Your task to perform on an android device: change the clock display to show seconds Image 0: 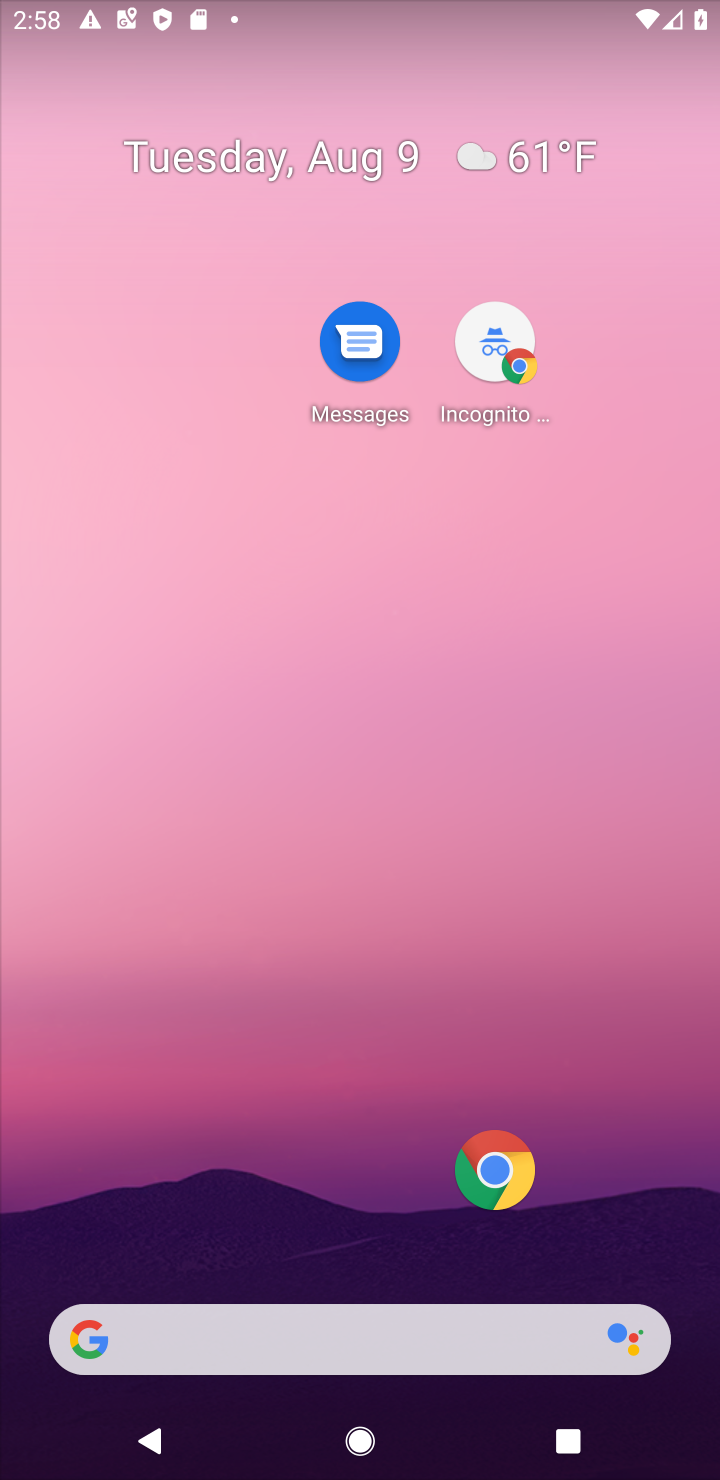
Step 0: drag from (285, 1220) to (412, 36)
Your task to perform on an android device: change the clock display to show seconds Image 1: 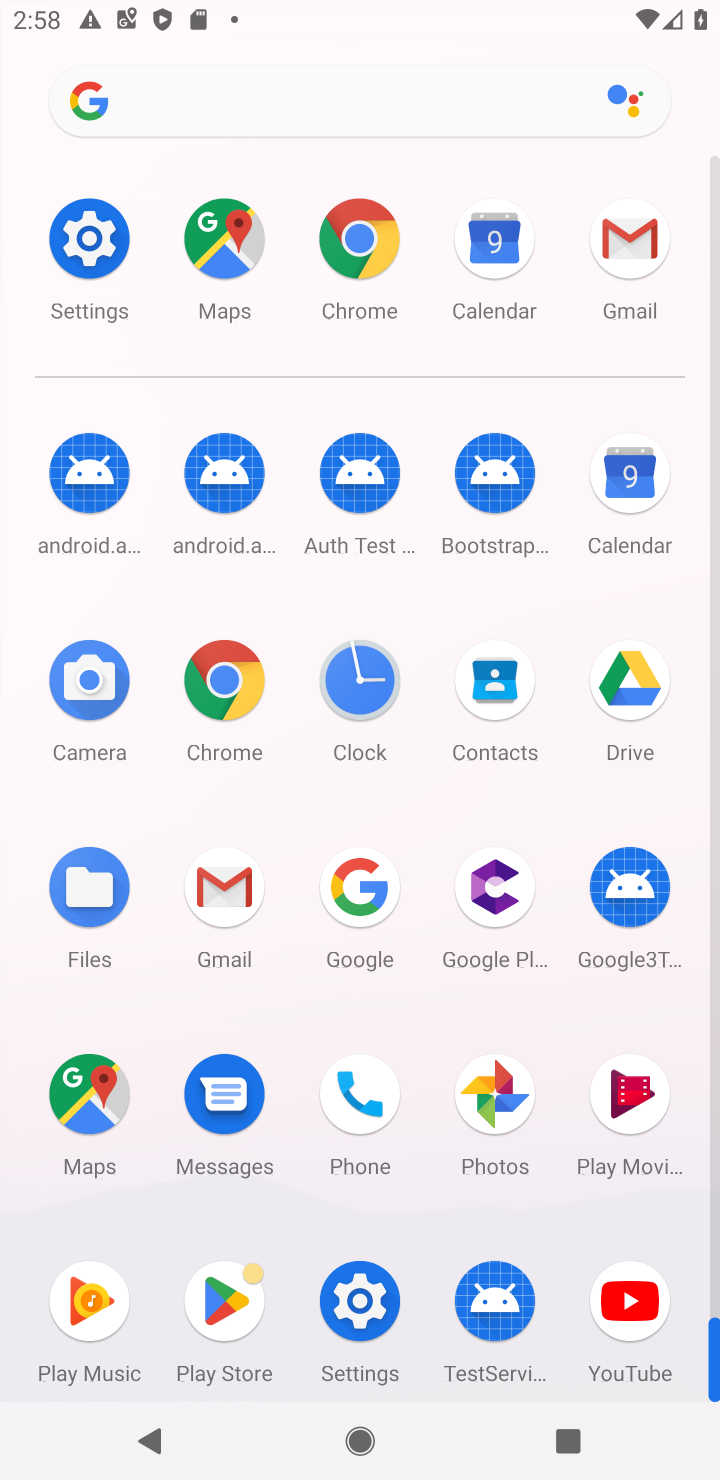
Step 1: click (382, 696)
Your task to perform on an android device: change the clock display to show seconds Image 2: 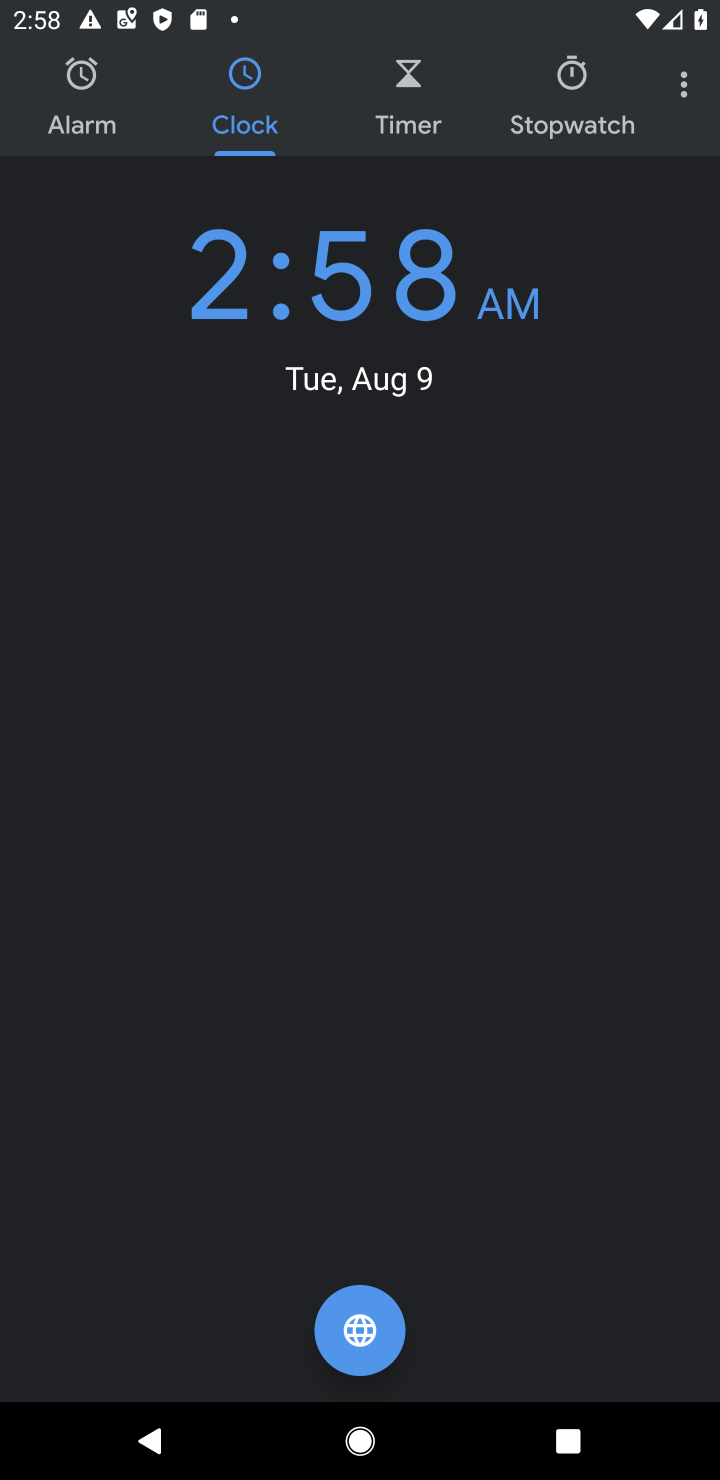
Step 2: click (657, 59)
Your task to perform on an android device: change the clock display to show seconds Image 3: 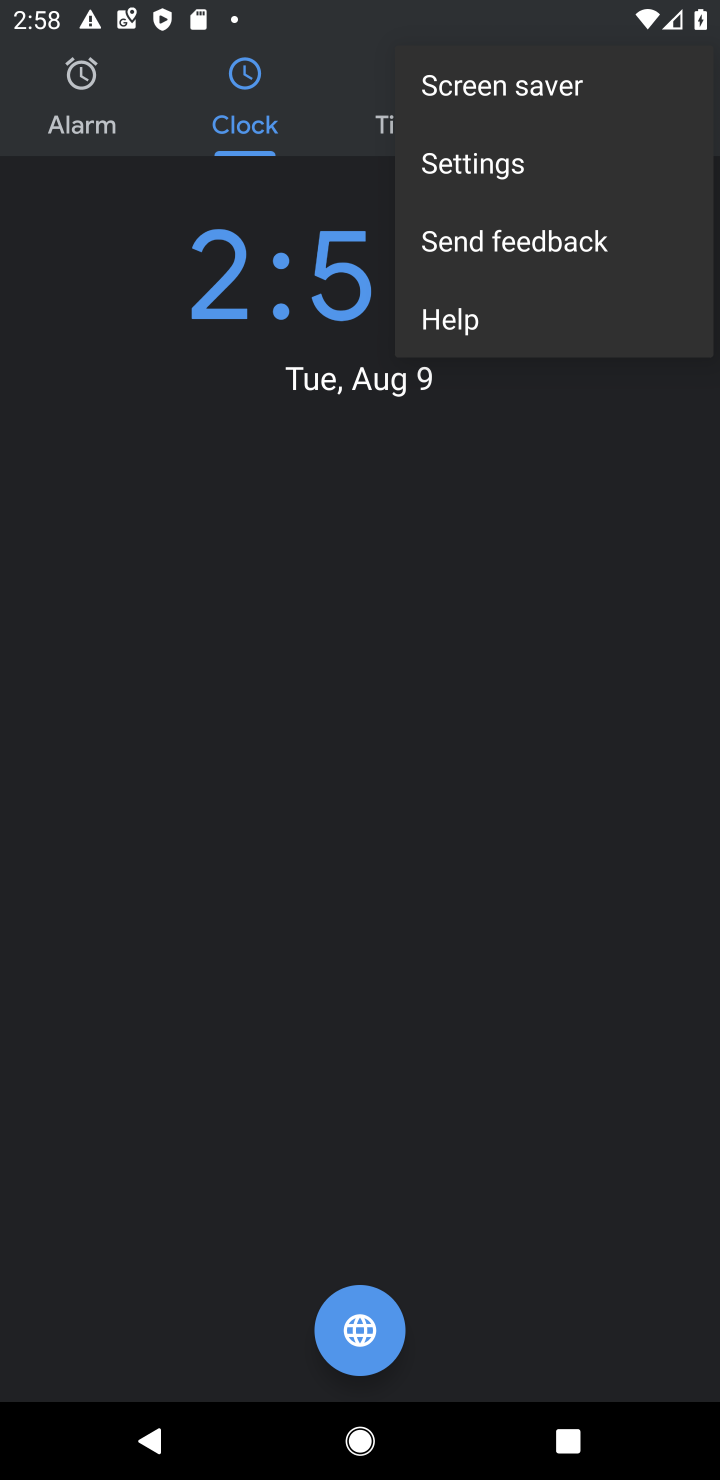
Step 3: click (458, 174)
Your task to perform on an android device: change the clock display to show seconds Image 4: 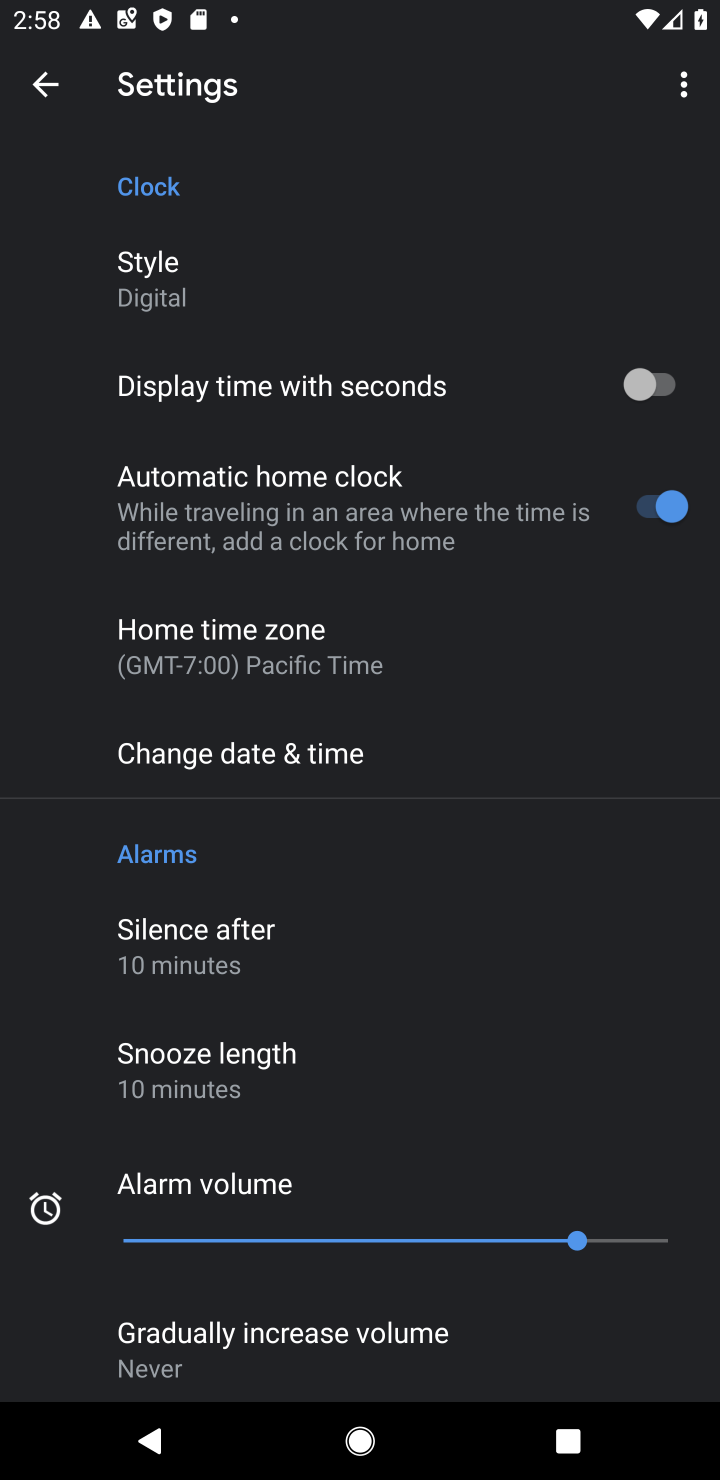
Step 4: click (167, 289)
Your task to perform on an android device: change the clock display to show seconds Image 5: 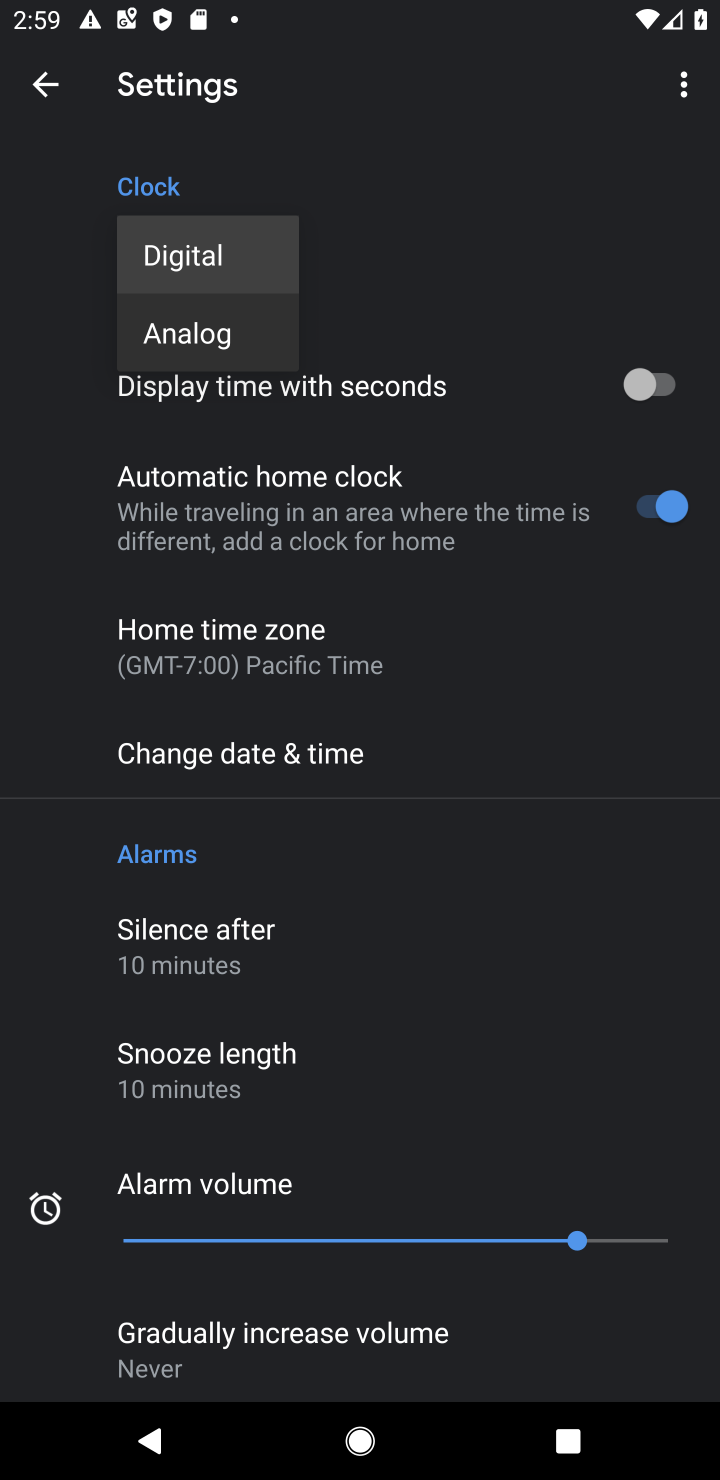
Step 5: click (211, 348)
Your task to perform on an android device: change the clock display to show seconds Image 6: 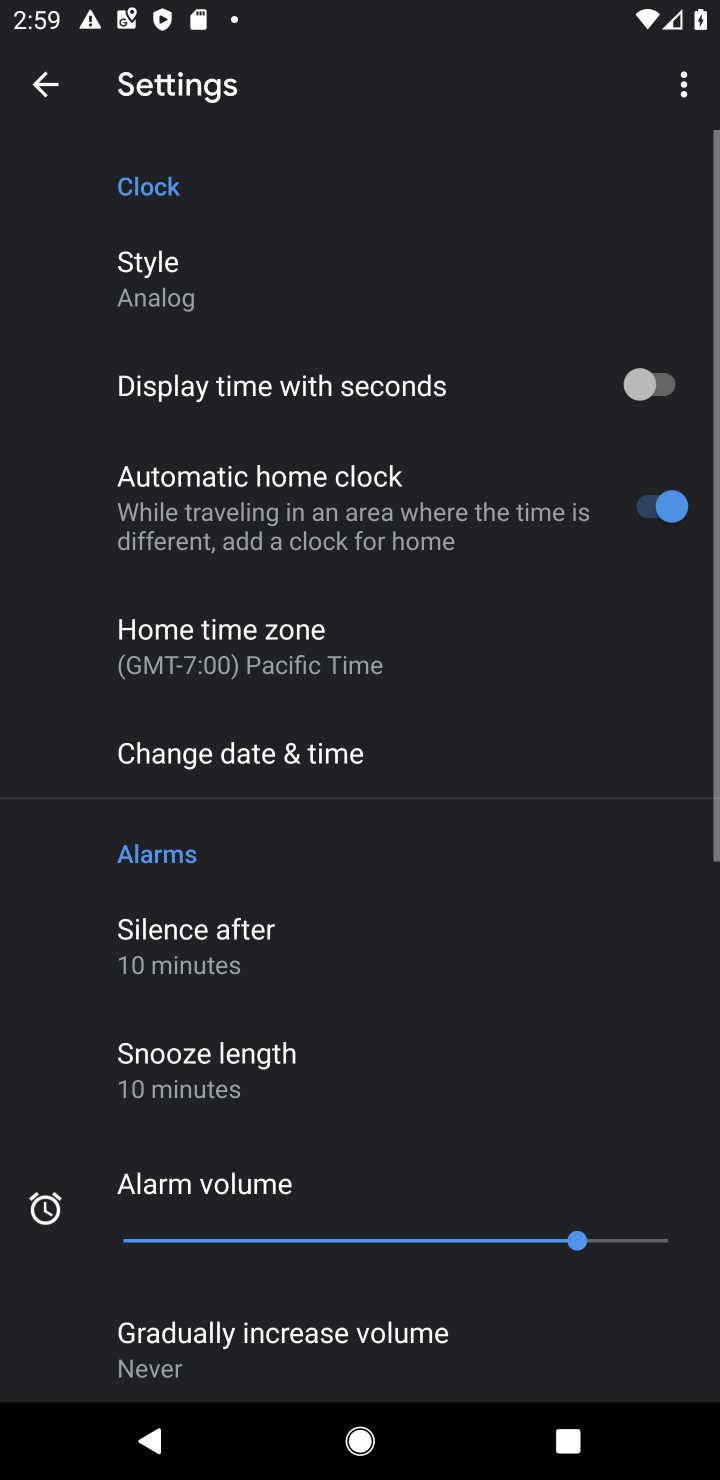
Step 6: click (672, 374)
Your task to perform on an android device: change the clock display to show seconds Image 7: 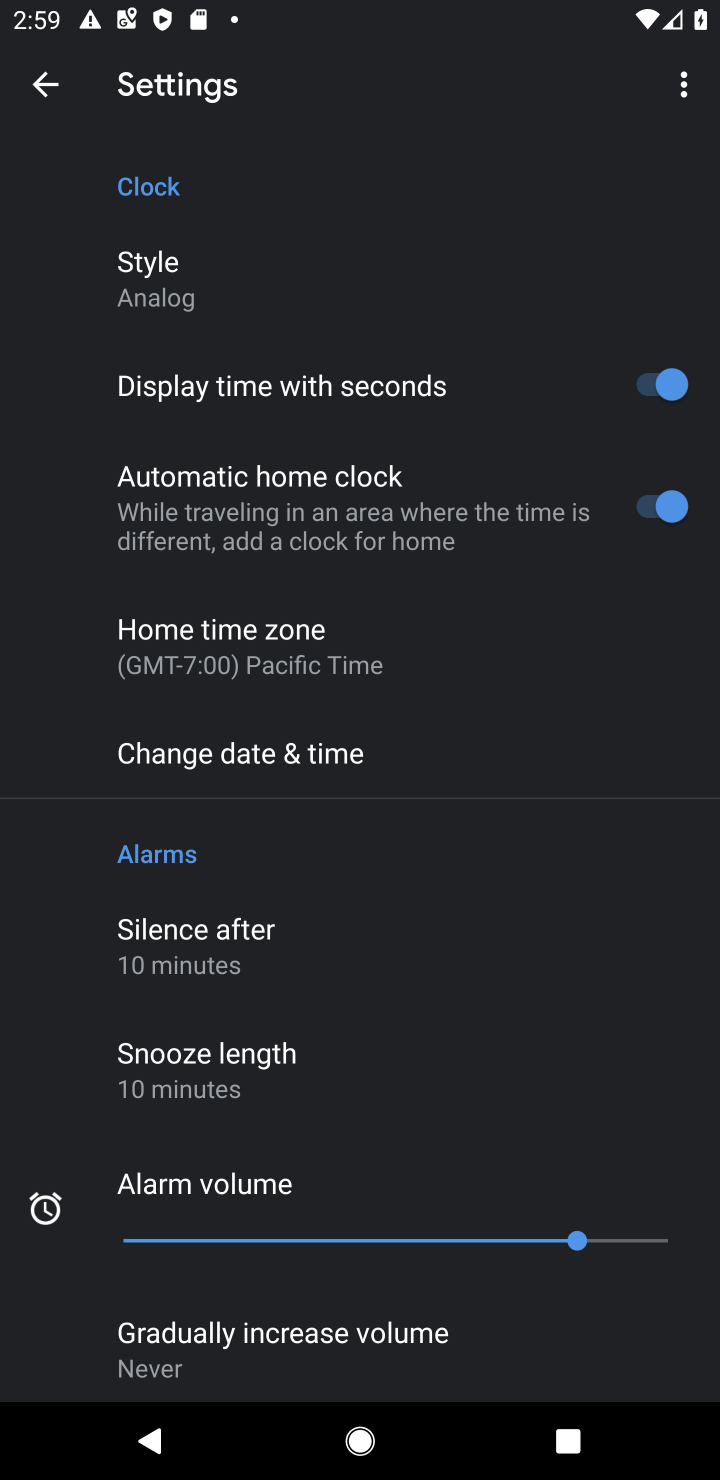
Step 7: task complete